Your task to perform on an android device: turn off javascript in the chrome app Image 0: 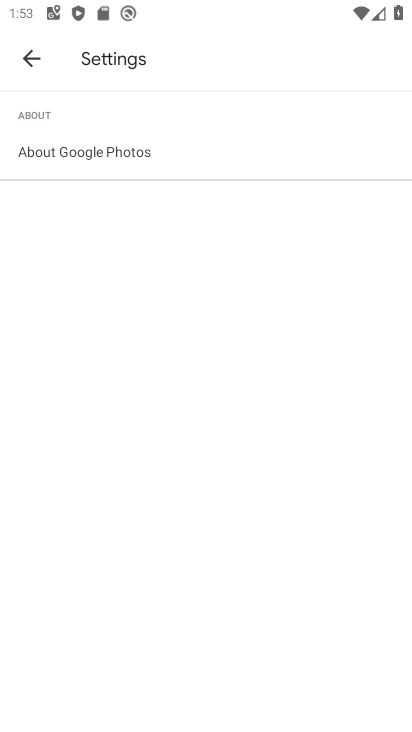
Step 0: press home button
Your task to perform on an android device: turn off javascript in the chrome app Image 1: 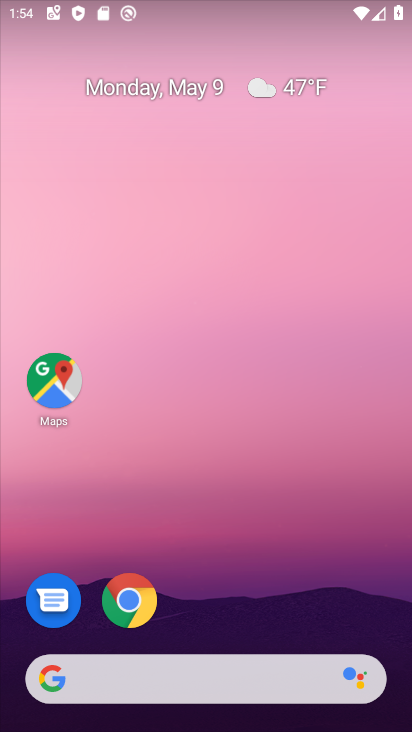
Step 1: drag from (186, 634) to (250, 12)
Your task to perform on an android device: turn off javascript in the chrome app Image 2: 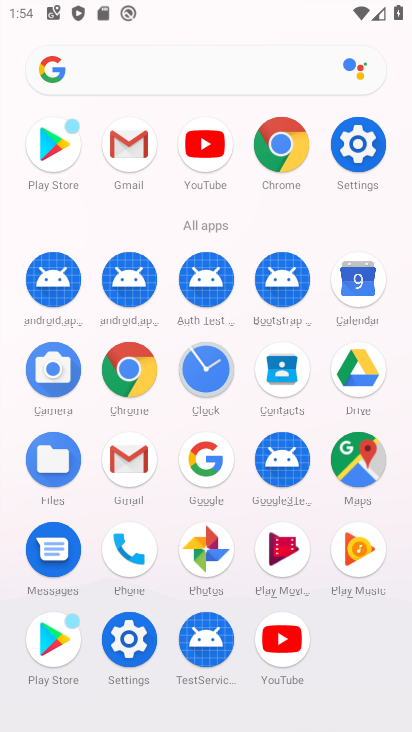
Step 2: click (289, 147)
Your task to perform on an android device: turn off javascript in the chrome app Image 3: 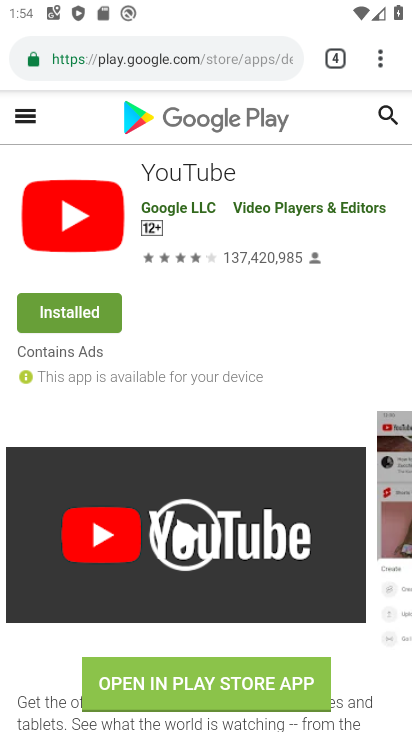
Step 3: click (397, 54)
Your task to perform on an android device: turn off javascript in the chrome app Image 4: 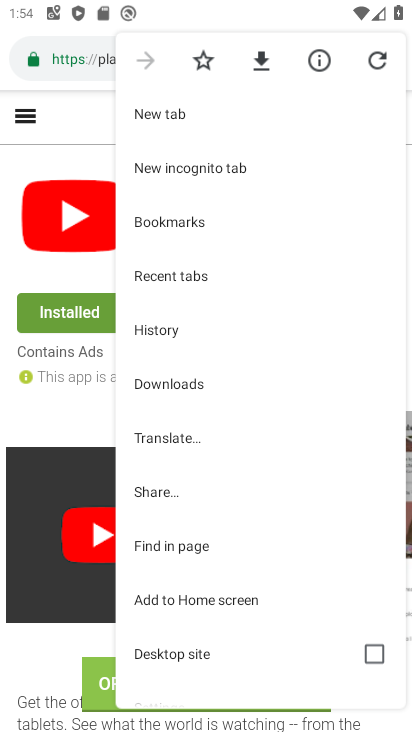
Step 4: drag from (183, 675) to (249, 213)
Your task to perform on an android device: turn off javascript in the chrome app Image 5: 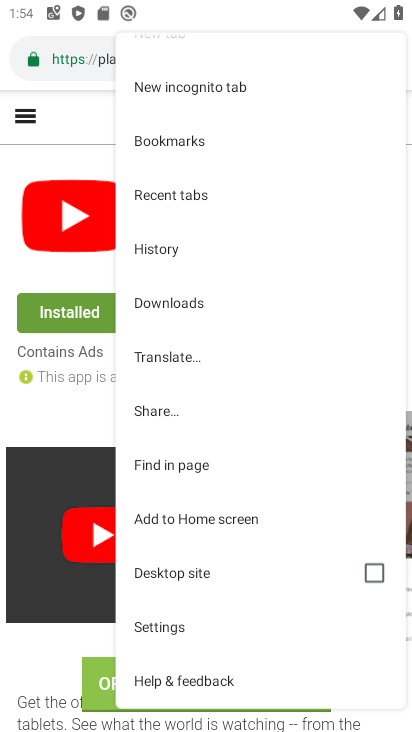
Step 5: click (205, 642)
Your task to perform on an android device: turn off javascript in the chrome app Image 6: 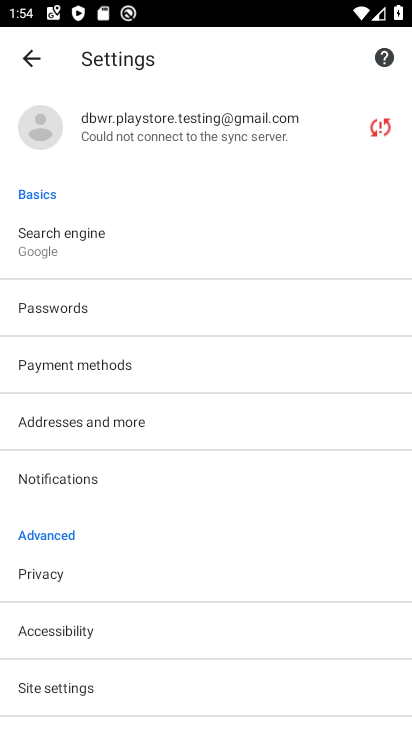
Step 6: drag from (205, 642) to (246, 364)
Your task to perform on an android device: turn off javascript in the chrome app Image 7: 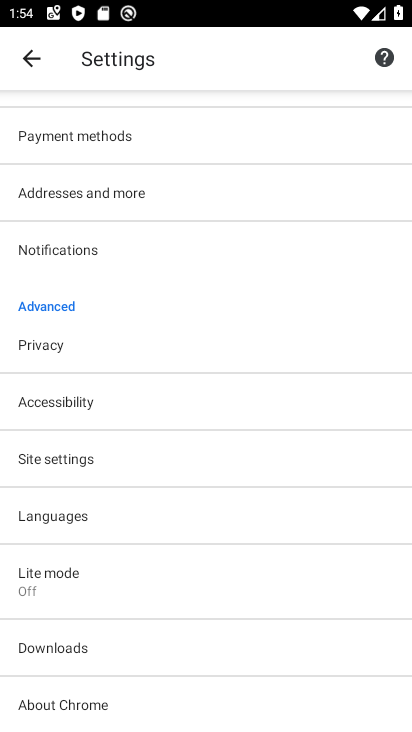
Step 7: click (145, 474)
Your task to perform on an android device: turn off javascript in the chrome app Image 8: 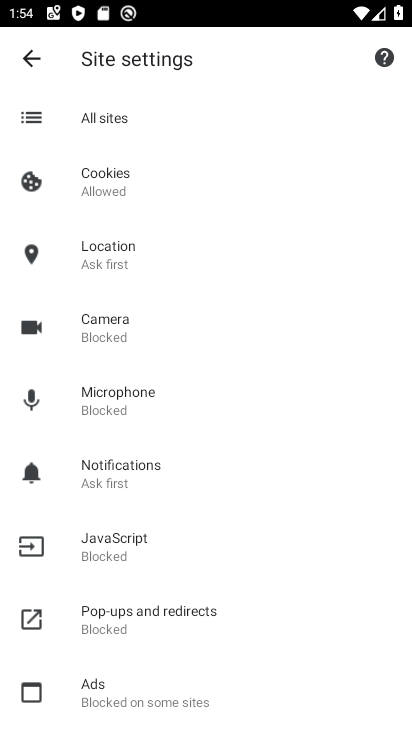
Step 8: click (123, 538)
Your task to perform on an android device: turn off javascript in the chrome app Image 9: 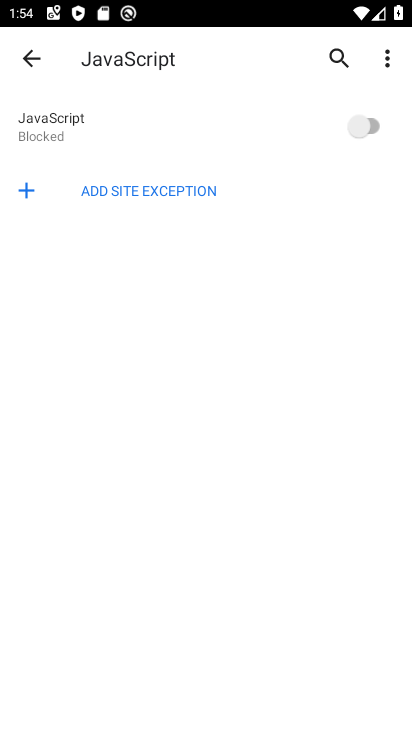
Step 9: click (371, 126)
Your task to perform on an android device: turn off javascript in the chrome app Image 10: 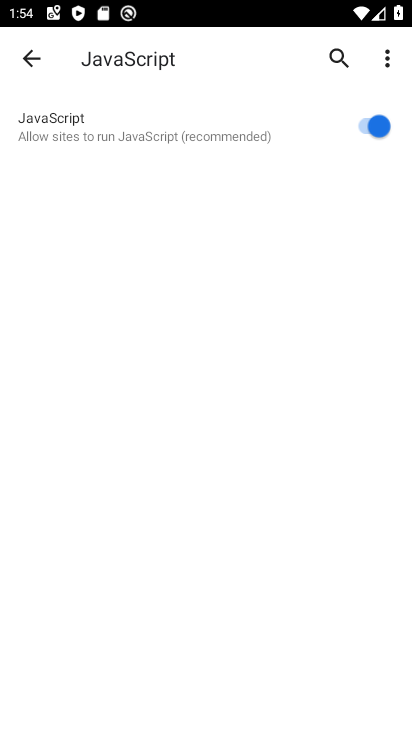
Step 10: task complete